Your task to perform on an android device: empty trash in the gmail app Image 0: 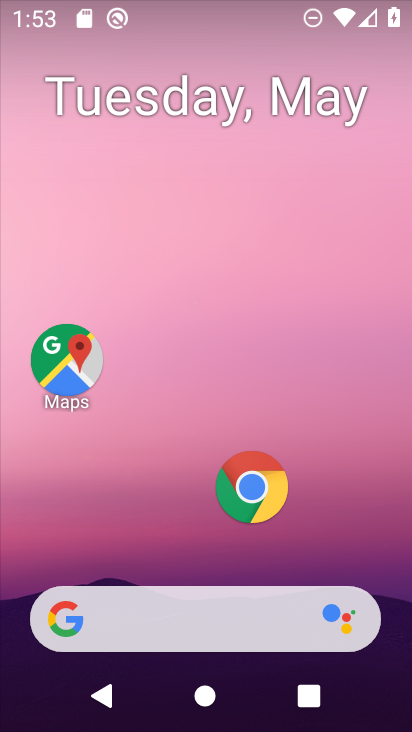
Step 0: click (164, 215)
Your task to perform on an android device: empty trash in the gmail app Image 1: 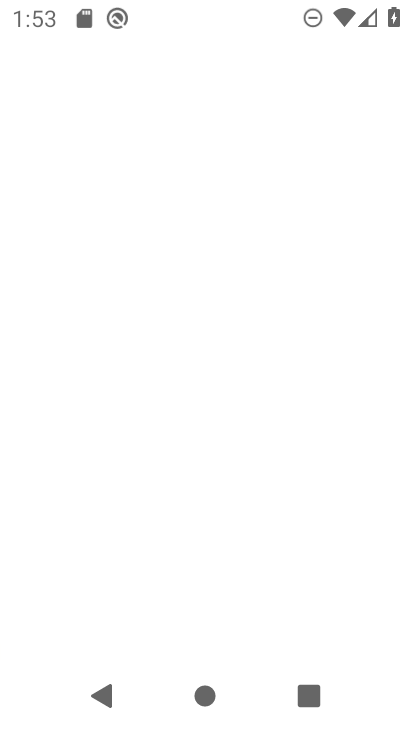
Step 1: press home button
Your task to perform on an android device: empty trash in the gmail app Image 2: 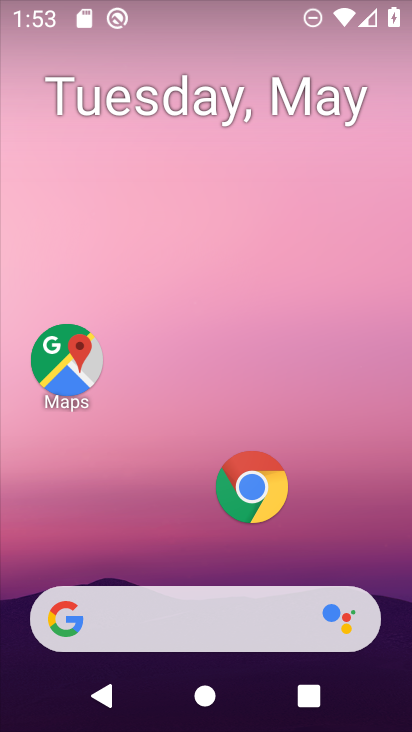
Step 2: drag from (161, 571) to (120, 239)
Your task to perform on an android device: empty trash in the gmail app Image 3: 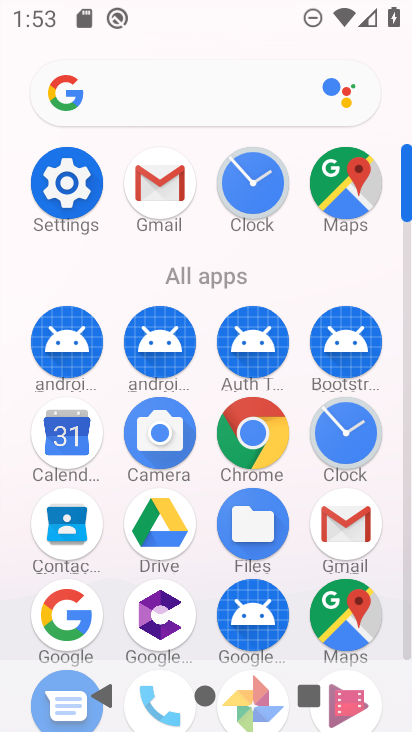
Step 3: click (161, 207)
Your task to perform on an android device: empty trash in the gmail app Image 4: 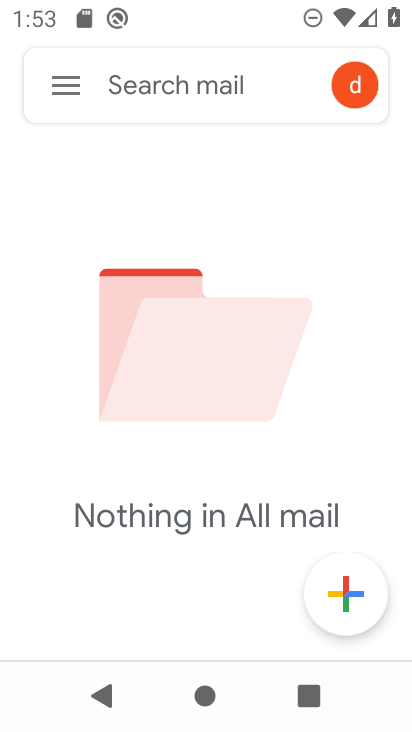
Step 4: click (56, 83)
Your task to perform on an android device: empty trash in the gmail app Image 5: 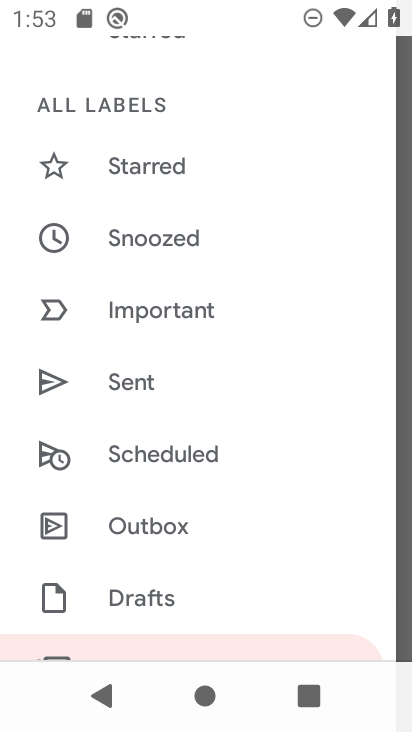
Step 5: drag from (156, 552) to (178, 266)
Your task to perform on an android device: empty trash in the gmail app Image 6: 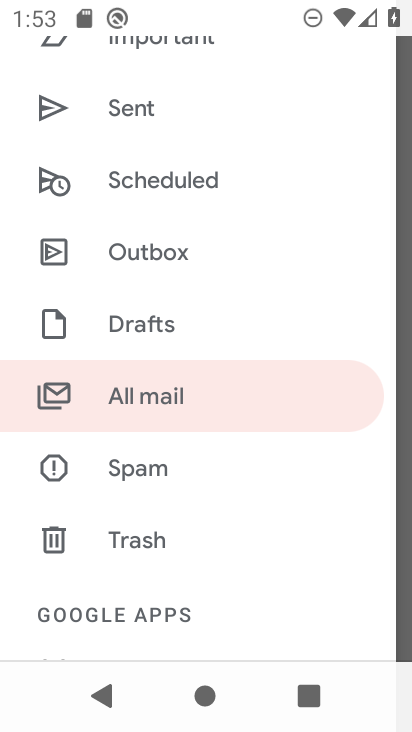
Step 6: click (132, 550)
Your task to perform on an android device: empty trash in the gmail app Image 7: 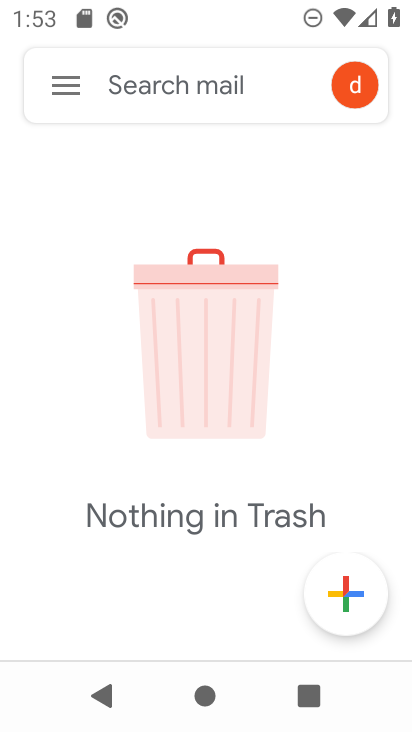
Step 7: task complete